Your task to perform on an android device: Search for a coffee table on IKEA Image 0: 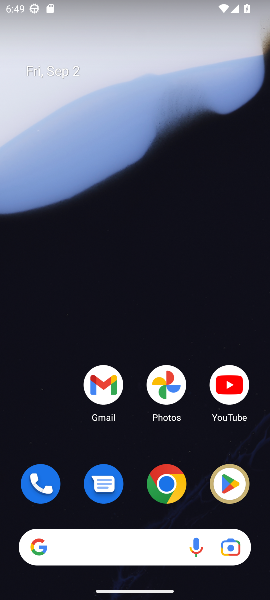
Step 0: click (167, 476)
Your task to perform on an android device: Search for a coffee table on IKEA Image 1: 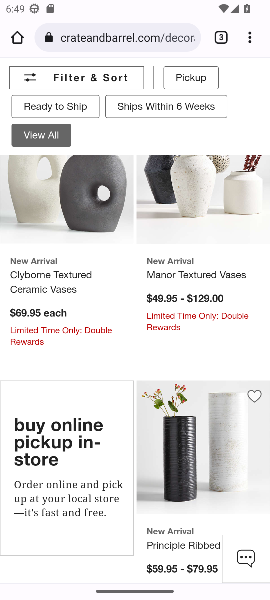
Step 1: press home button
Your task to perform on an android device: Search for a coffee table on IKEA Image 2: 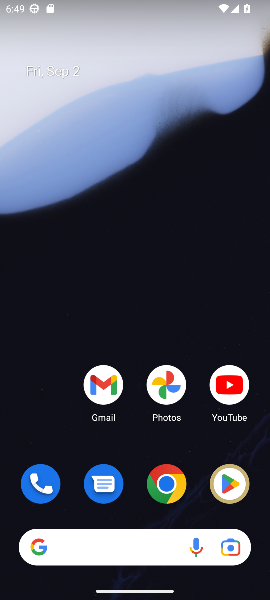
Step 2: click (169, 489)
Your task to perform on an android device: Search for a coffee table on IKEA Image 3: 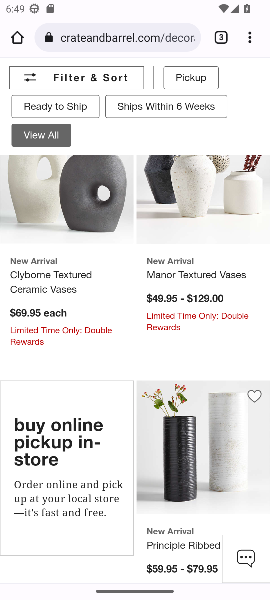
Step 3: click (166, 34)
Your task to perform on an android device: Search for a coffee table on IKEA Image 4: 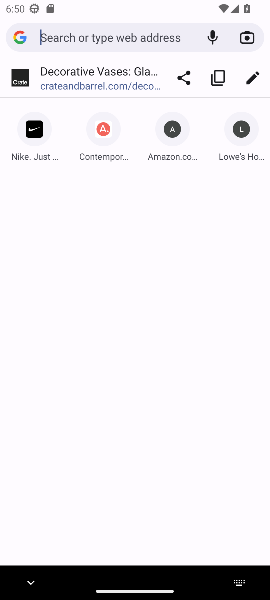
Step 4: type " IKEA"
Your task to perform on an android device: Search for a coffee table on IKEA Image 5: 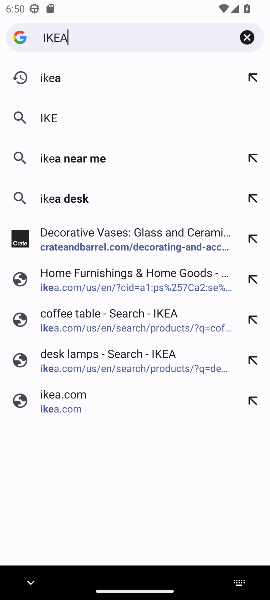
Step 5: press enter
Your task to perform on an android device: Search for a coffee table on IKEA Image 6: 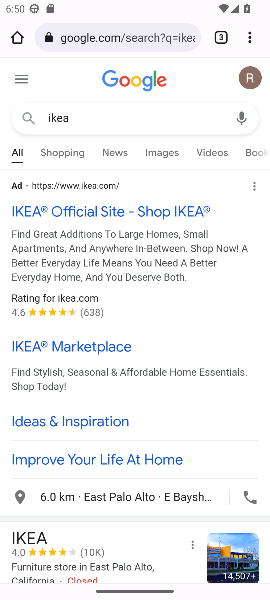
Step 6: click (128, 217)
Your task to perform on an android device: Search for a coffee table on IKEA Image 7: 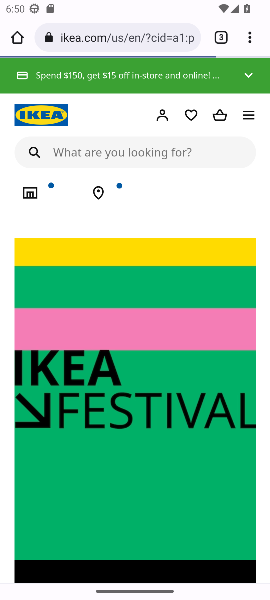
Step 7: click (161, 147)
Your task to perform on an android device: Search for a coffee table on IKEA Image 8: 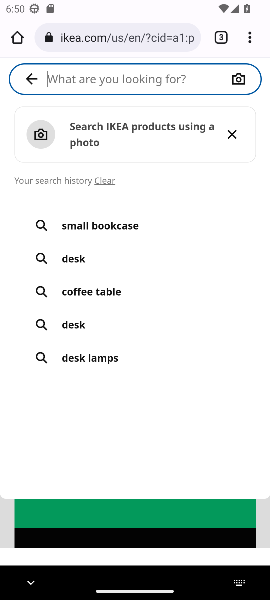
Step 8: click (100, 293)
Your task to perform on an android device: Search for a coffee table on IKEA Image 9: 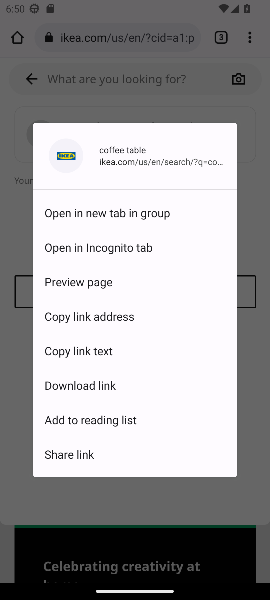
Step 9: click (231, 495)
Your task to perform on an android device: Search for a coffee table on IKEA Image 10: 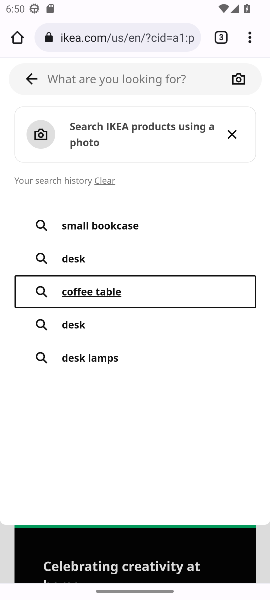
Step 10: click (78, 295)
Your task to perform on an android device: Search for a coffee table on IKEA Image 11: 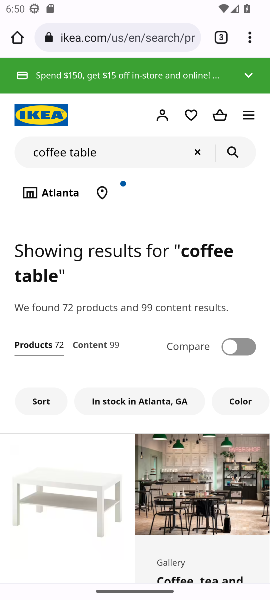
Step 11: task complete